Your task to perform on an android device: Do I have any events tomorrow? Image 0: 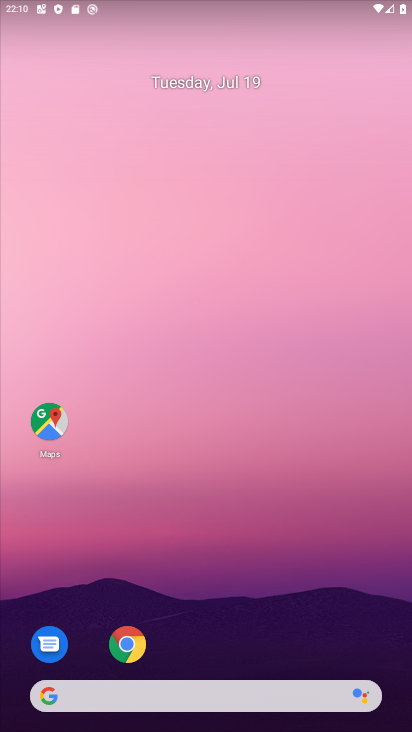
Step 0: drag from (322, 644) to (411, 47)
Your task to perform on an android device: Do I have any events tomorrow? Image 1: 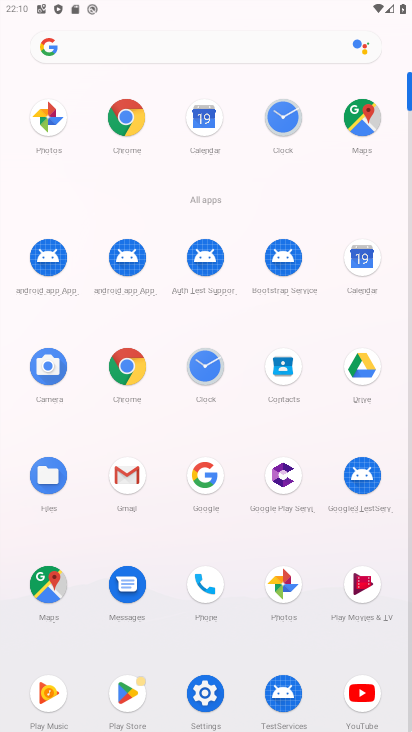
Step 1: click (355, 262)
Your task to perform on an android device: Do I have any events tomorrow? Image 2: 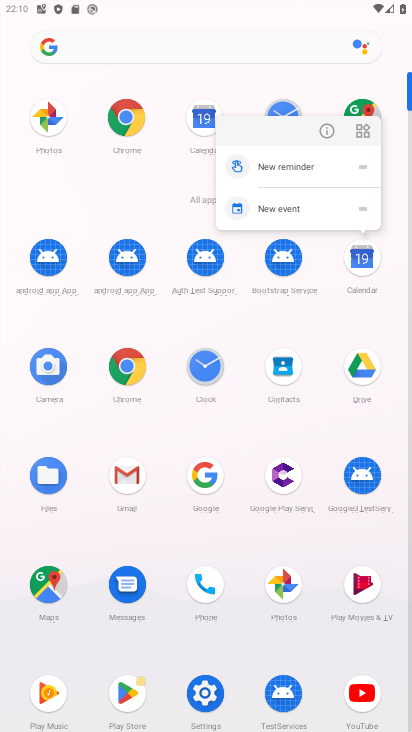
Step 2: click (360, 263)
Your task to perform on an android device: Do I have any events tomorrow? Image 3: 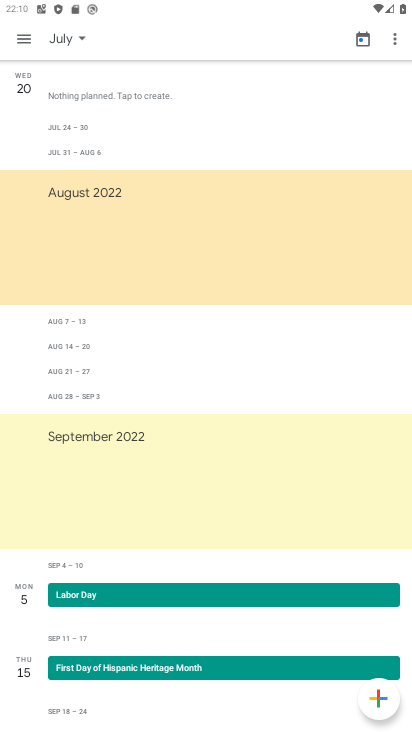
Step 3: click (66, 39)
Your task to perform on an android device: Do I have any events tomorrow? Image 4: 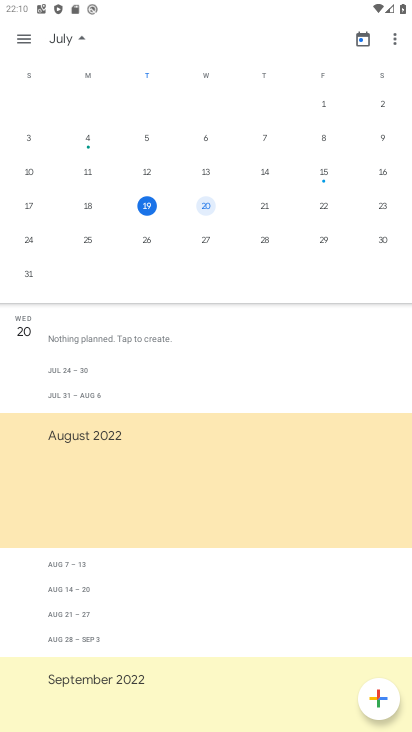
Step 4: click (262, 204)
Your task to perform on an android device: Do I have any events tomorrow? Image 5: 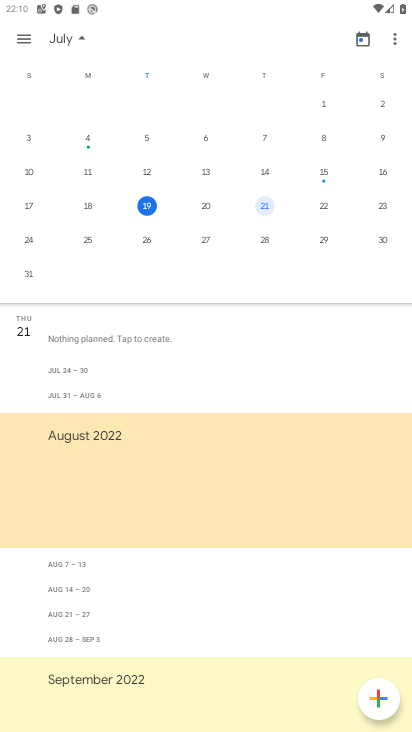
Step 5: task complete